Your task to perform on an android device: Go to Reddit.com Image 0: 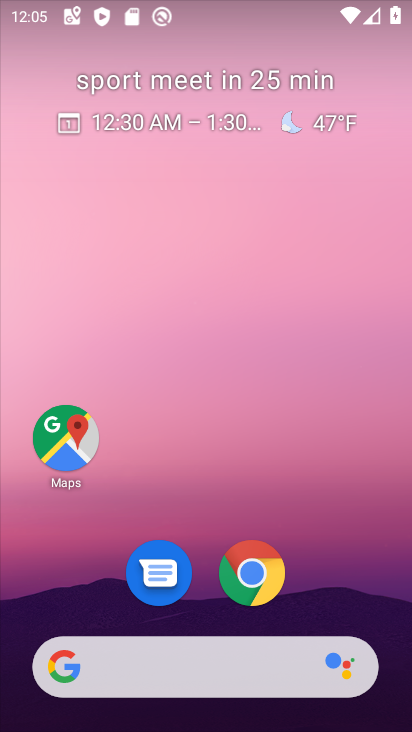
Step 0: click (238, 666)
Your task to perform on an android device: Go to Reddit.com Image 1: 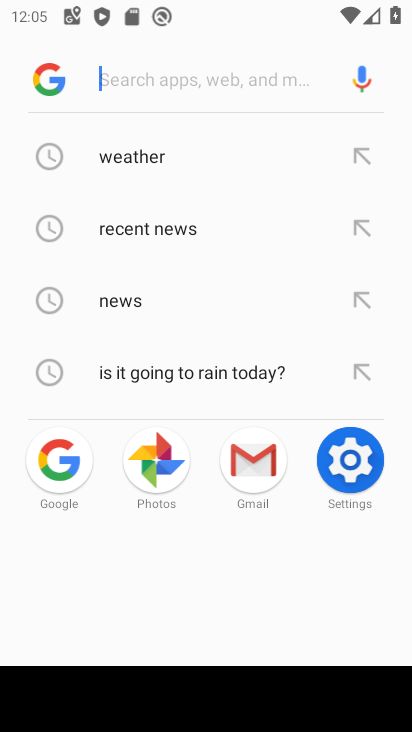
Step 1: click (191, 74)
Your task to perform on an android device: Go to Reddit.com Image 2: 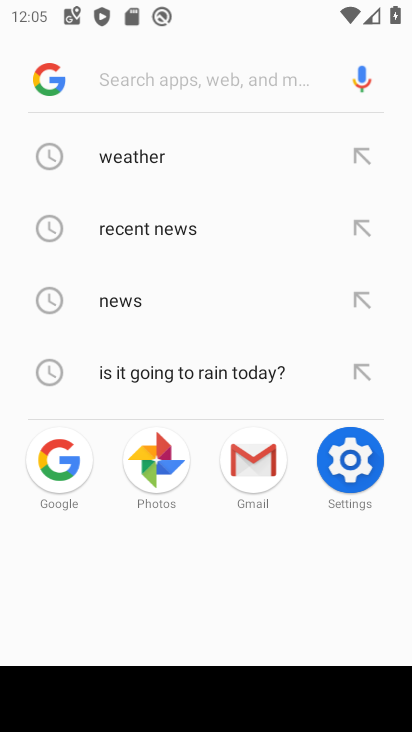
Step 2: type "Raddit.com"
Your task to perform on an android device: Go to Reddit.com Image 3: 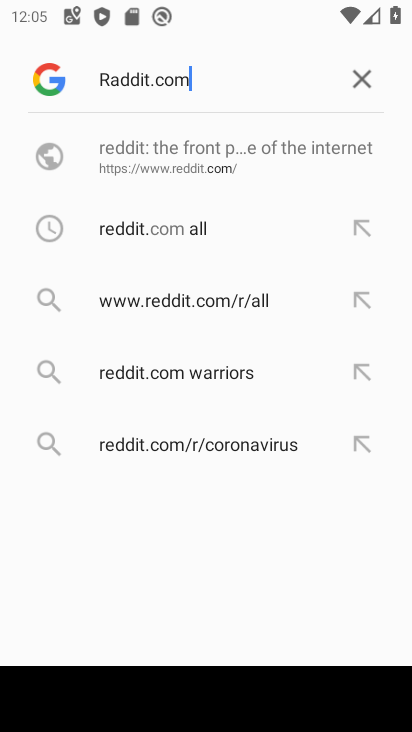
Step 3: click (220, 152)
Your task to perform on an android device: Go to Reddit.com Image 4: 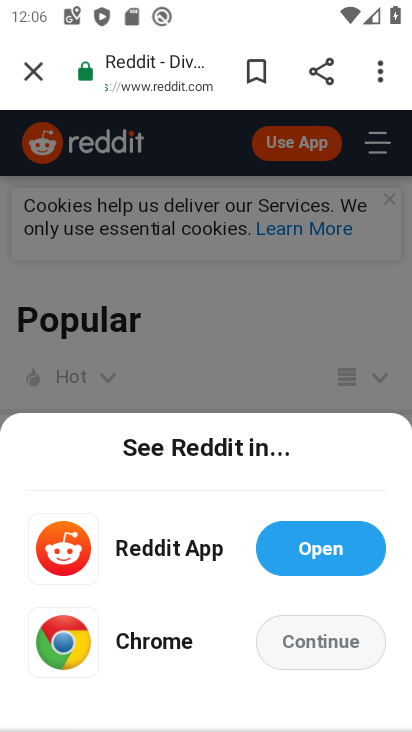
Step 4: drag from (223, 370) to (261, 234)
Your task to perform on an android device: Go to Reddit.com Image 5: 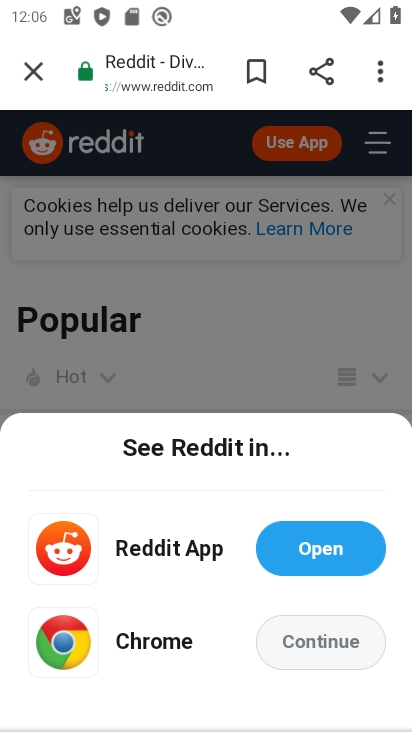
Step 5: click (307, 643)
Your task to perform on an android device: Go to Reddit.com Image 6: 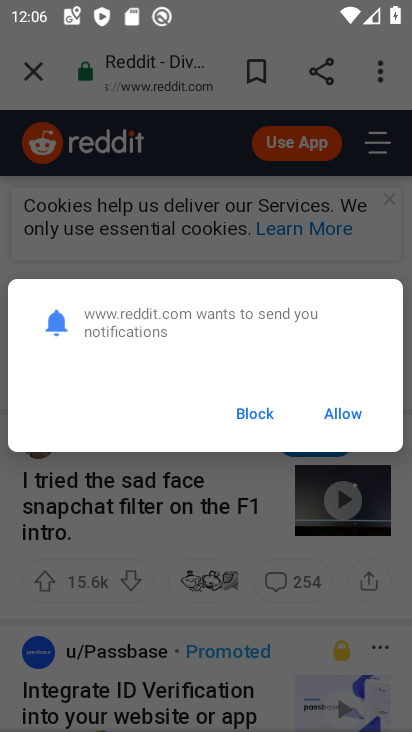
Step 6: task complete